Your task to perform on an android device: delete a single message in the gmail app Image 0: 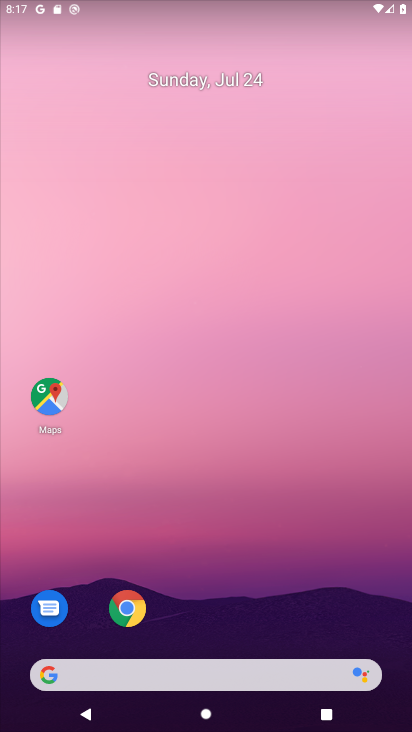
Step 0: drag from (164, 633) to (370, 192)
Your task to perform on an android device: delete a single message in the gmail app Image 1: 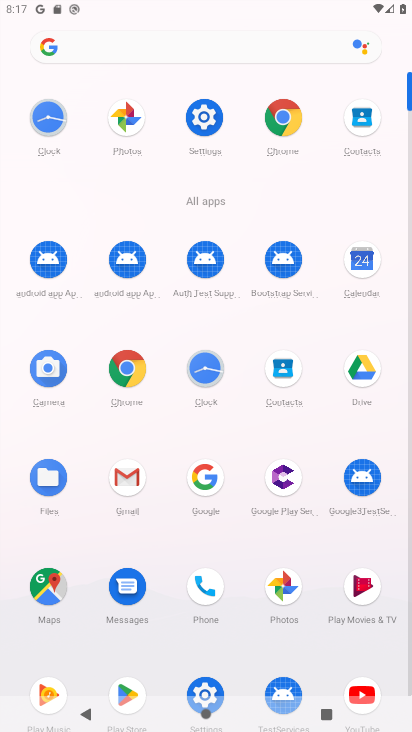
Step 1: drag from (233, 600) to (150, 7)
Your task to perform on an android device: delete a single message in the gmail app Image 2: 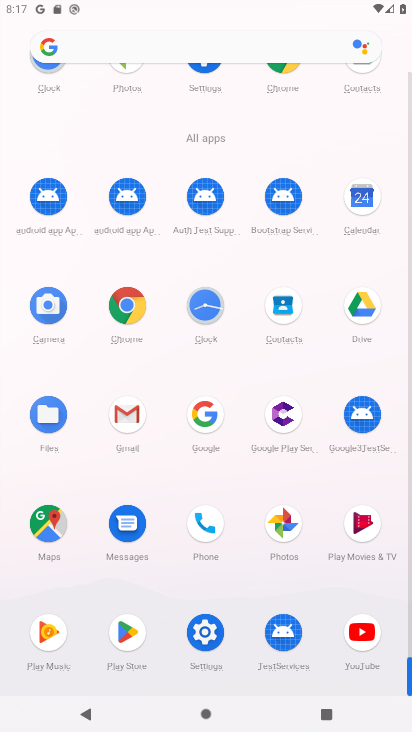
Step 2: click (128, 388)
Your task to perform on an android device: delete a single message in the gmail app Image 3: 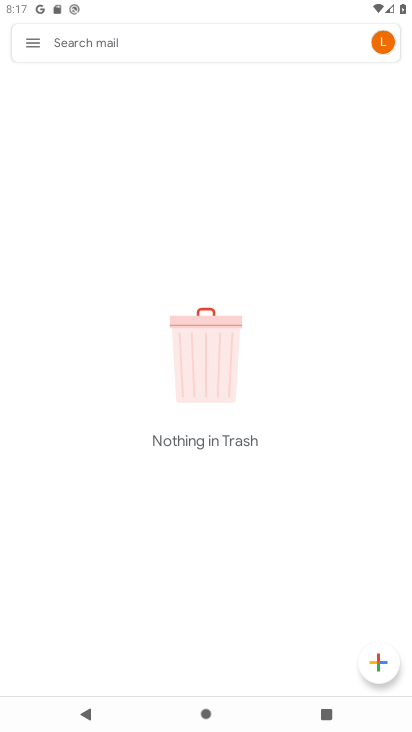
Step 3: click (38, 30)
Your task to perform on an android device: delete a single message in the gmail app Image 4: 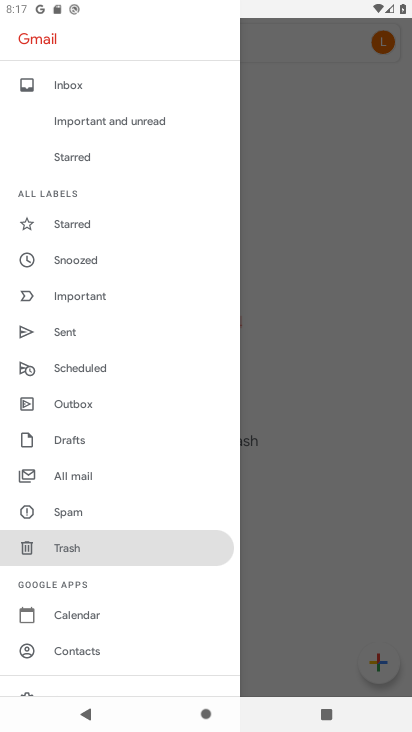
Step 4: click (68, 88)
Your task to perform on an android device: delete a single message in the gmail app Image 5: 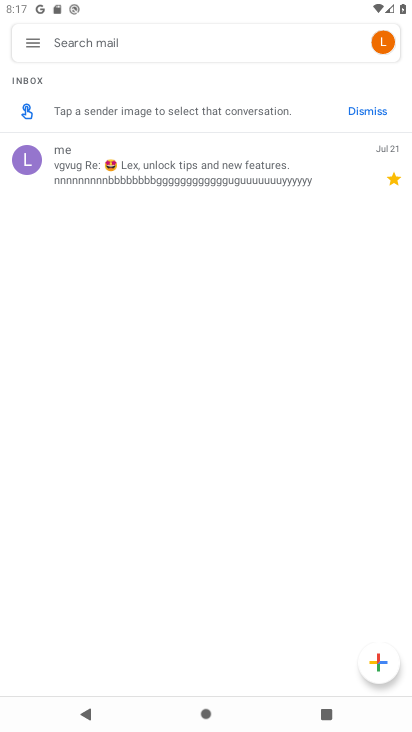
Step 5: click (22, 166)
Your task to perform on an android device: delete a single message in the gmail app Image 6: 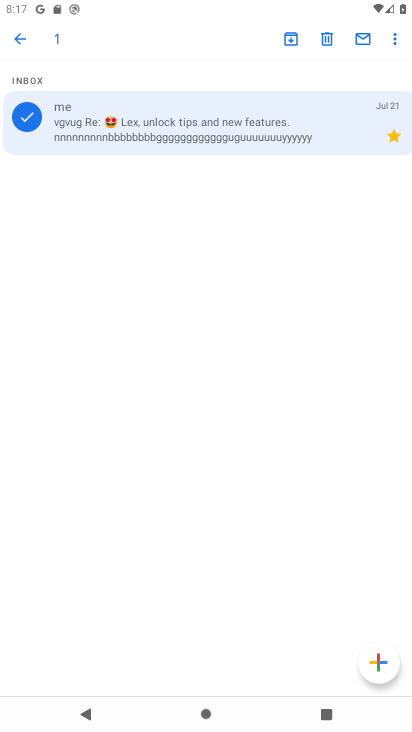
Step 6: click (328, 43)
Your task to perform on an android device: delete a single message in the gmail app Image 7: 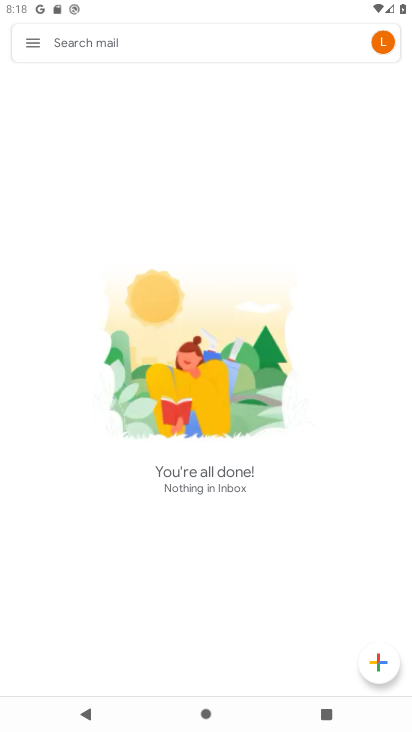
Step 7: task complete